Your task to perform on an android device: change notification settings in the gmail app Image 0: 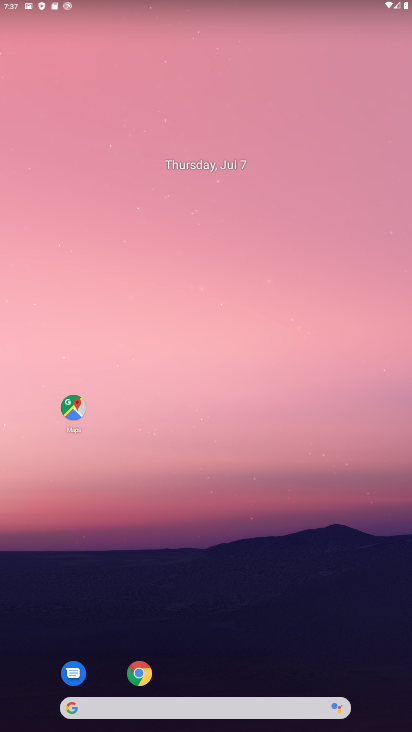
Step 0: drag from (202, 674) to (296, 195)
Your task to perform on an android device: change notification settings in the gmail app Image 1: 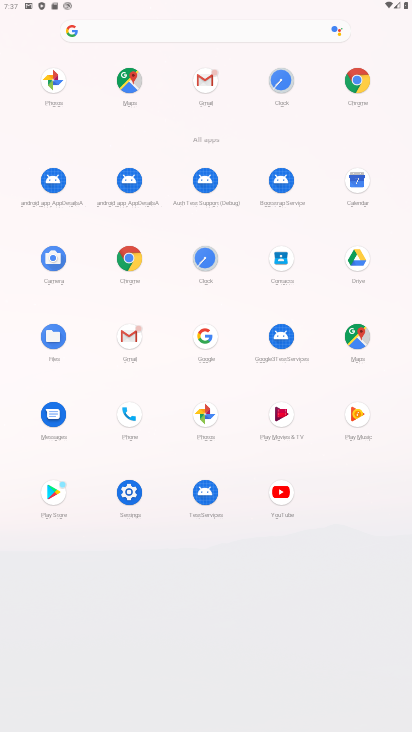
Step 1: click (205, 79)
Your task to perform on an android device: change notification settings in the gmail app Image 2: 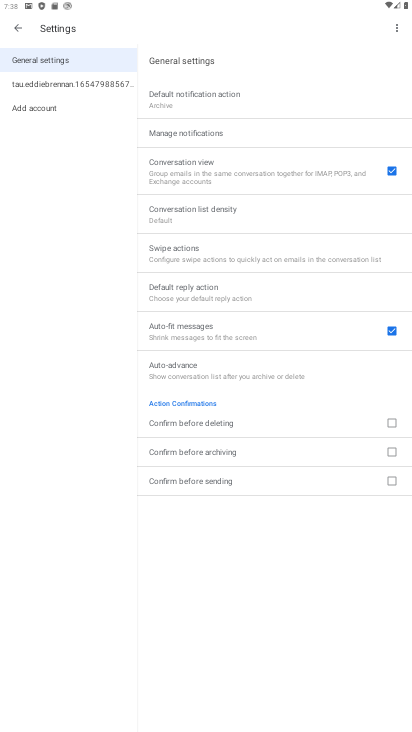
Step 2: click (90, 64)
Your task to perform on an android device: change notification settings in the gmail app Image 3: 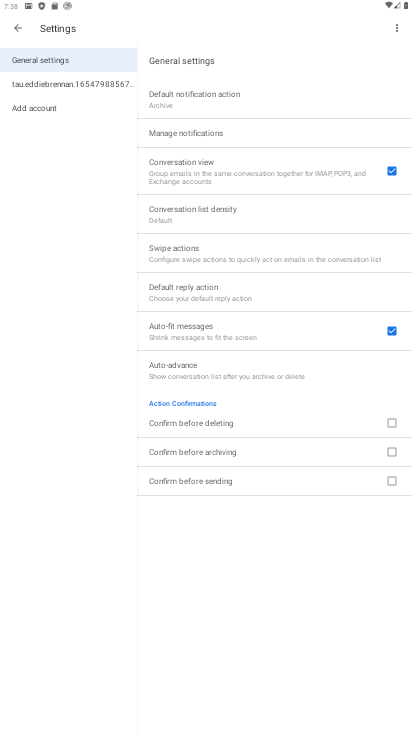
Step 3: click (90, 82)
Your task to perform on an android device: change notification settings in the gmail app Image 4: 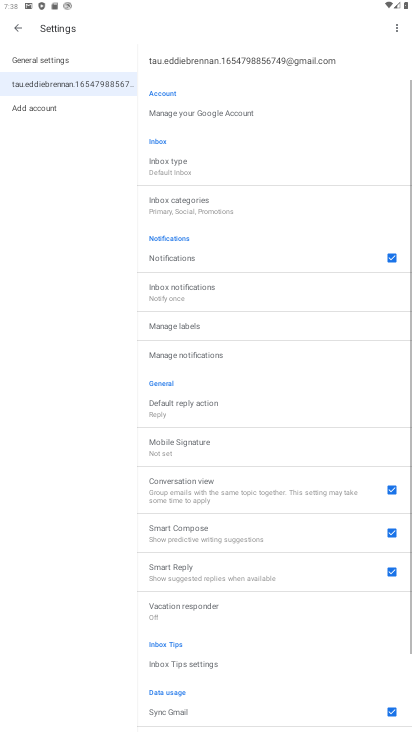
Step 4: click (89, 82)
Your task to perform on an android device: change notification settings in the gmail app Image 5: 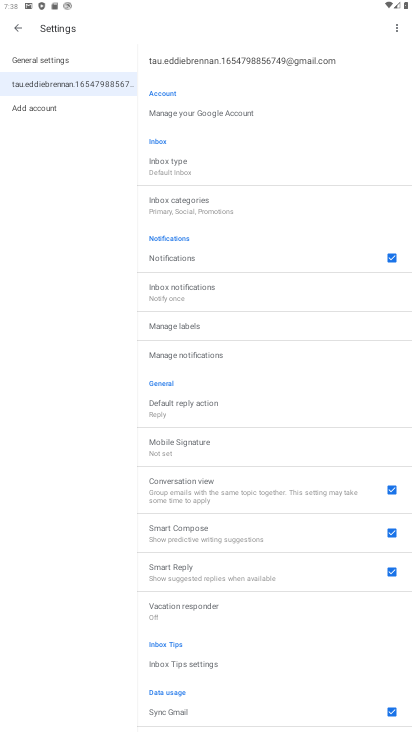
Step 5: click (209, 260)
Your task to perform on an android device: change notification settings in the gmail app Image 6: 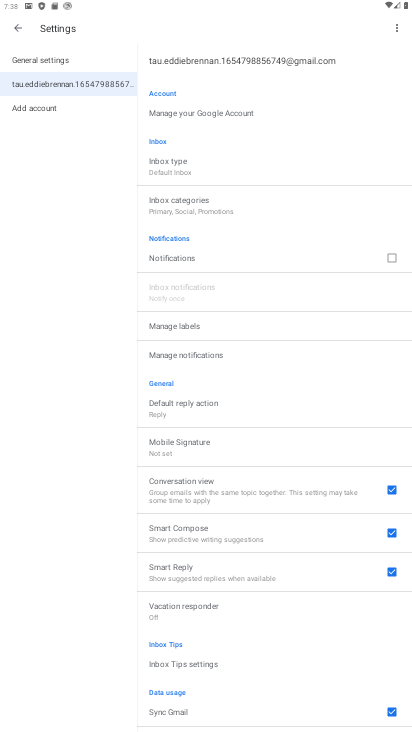
Step 6: task complete